Your task to perform on an android device: set the timer Image 0: 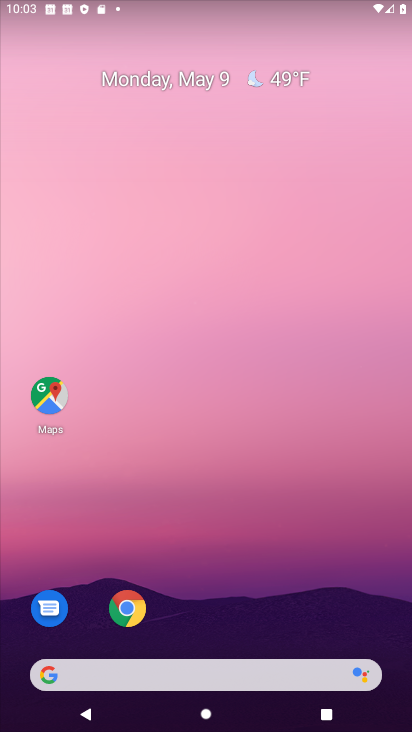
Step 0: drag from (289, 579) to (193, 78)
Your task to perform on an android device: set the timer Image 1: 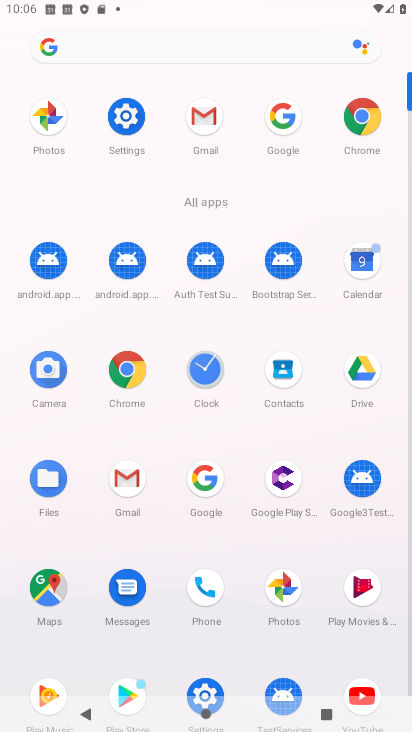
Step 1: drag from (240, 532) to (201, 381)
Your task to perform on an android device: set the timer Image 2: 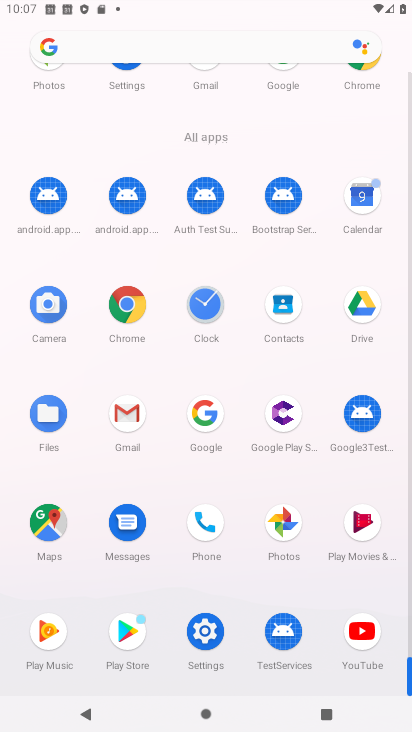
Step 2: click (210, 313)
Your task to perform on an android device: set the timer Image 3: 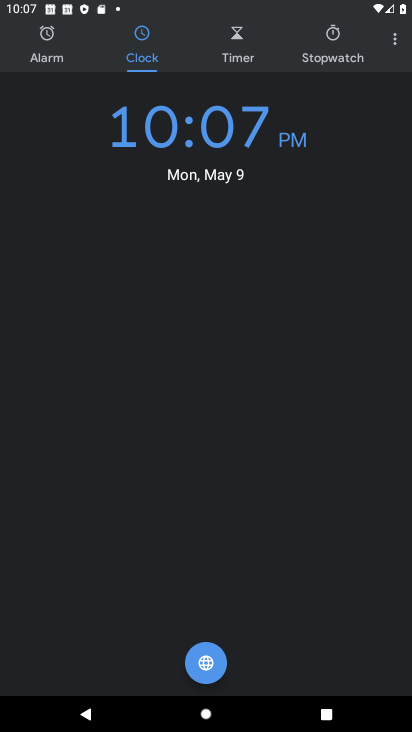
Step 3: click (240, 58)
Your task to perform on an android device: set the timer Image 4: 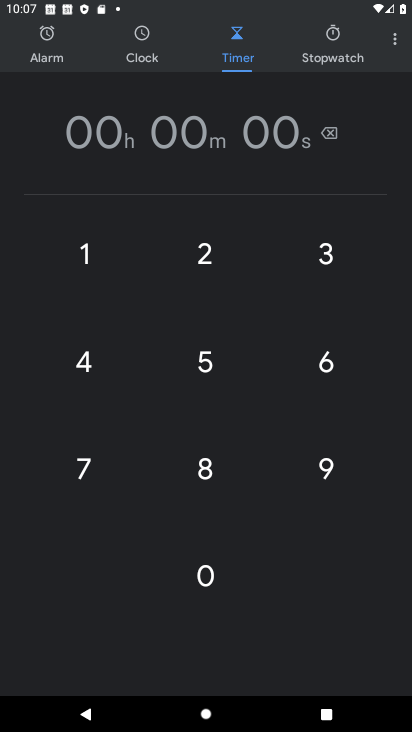
Step 4: click (300, 256)
Your task to perform on an android device: set the timer Image 5: 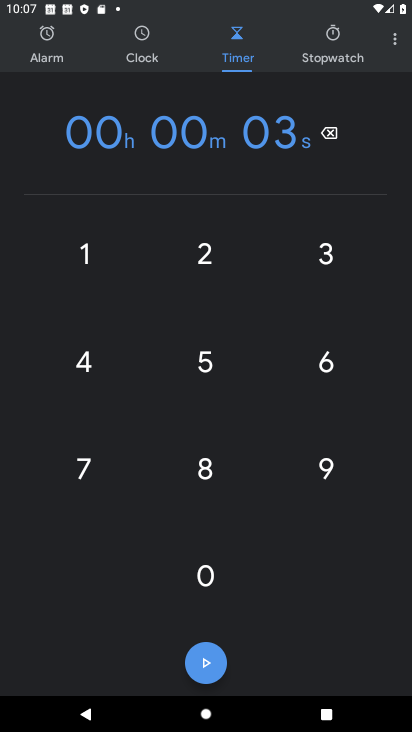
Step 5: click (192, 681)
Your task to perform on an android device: set the timer Image 6: 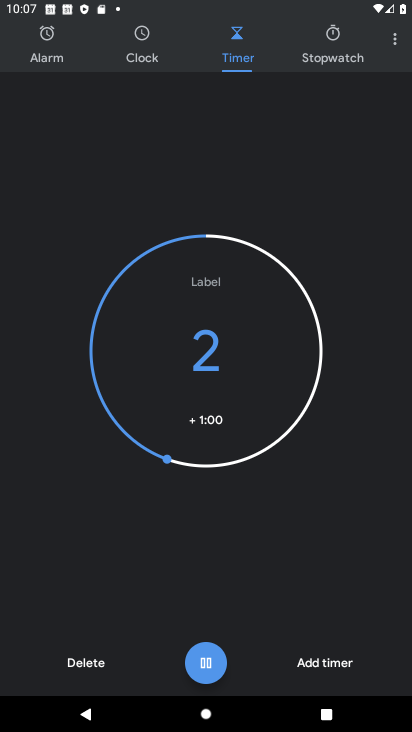
Step 6: task complete